Your task to perform on an android device: open wifi settings Image 0: 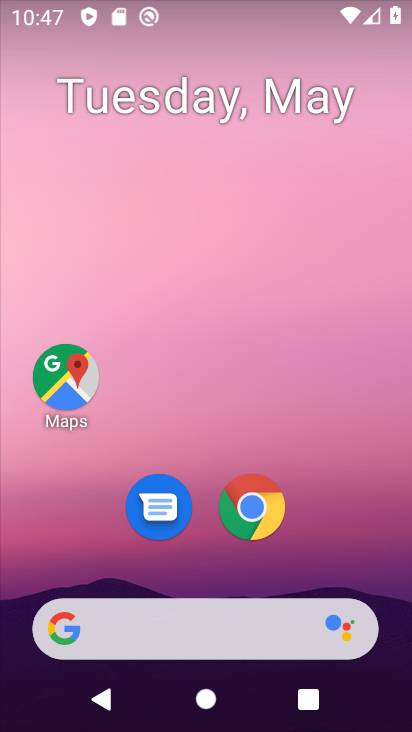
Step 0: click (200, 162)
Your task to perform on an android device: open wifi settings Image 1: 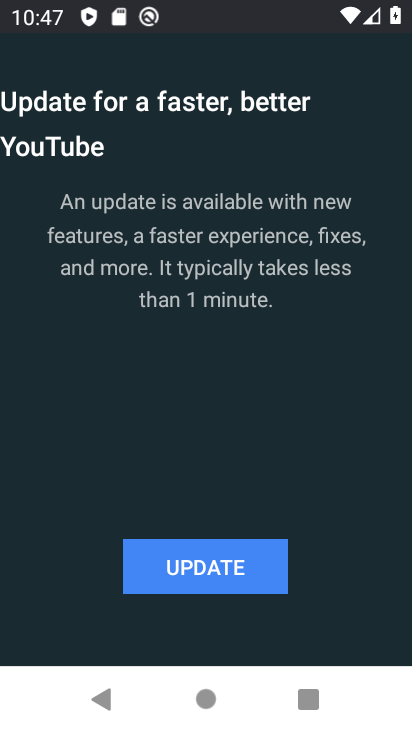
Step 1: press back button
Your task to perform on an android device: open wifi settings Image 2: 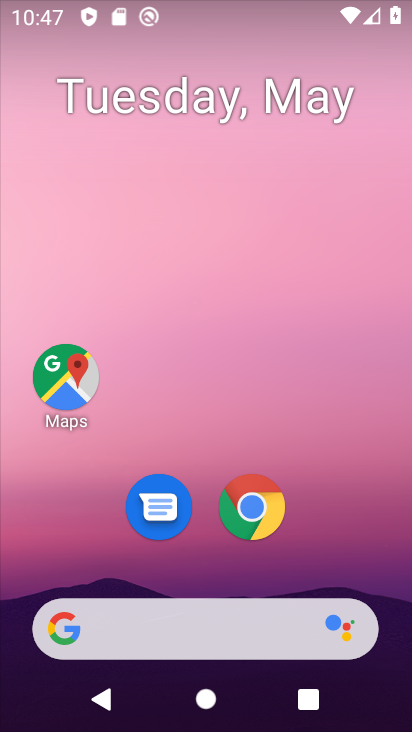
Step 2: drag from (240, 670) to (146, 16)
Your task to perform on an android device: open wifi settings Image 3: 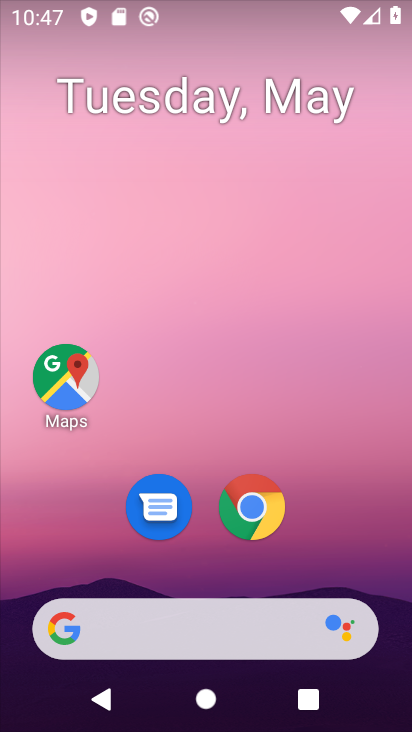
Step 3: drag from (279, 702) to (197, 22)
Your task to perform on an android device: open wifi settings Image 4: 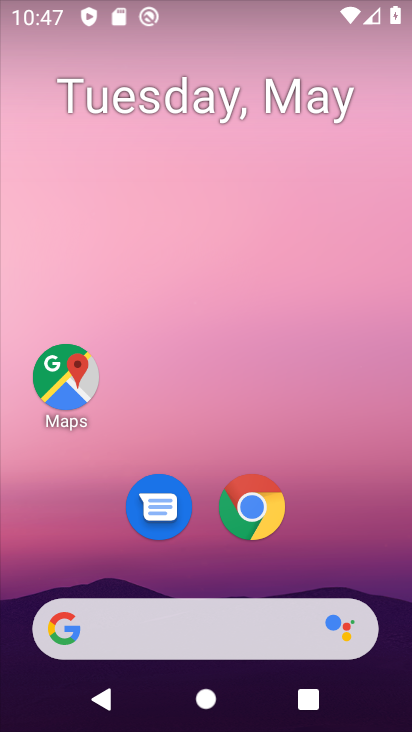
Step 4: drag from (237, 570) to (216, 11)
Your task to perform on an android device: open wifi settings Image 5: 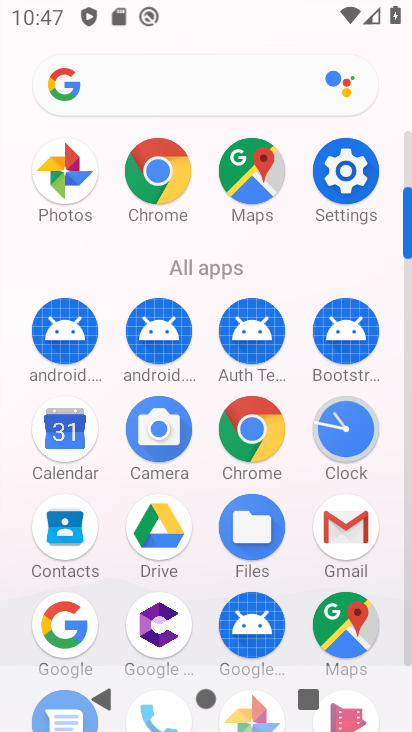
Step 5: drag from (272, 610) to (190, 31)
Your task to perform on an android device: open wifi settings Image 6: 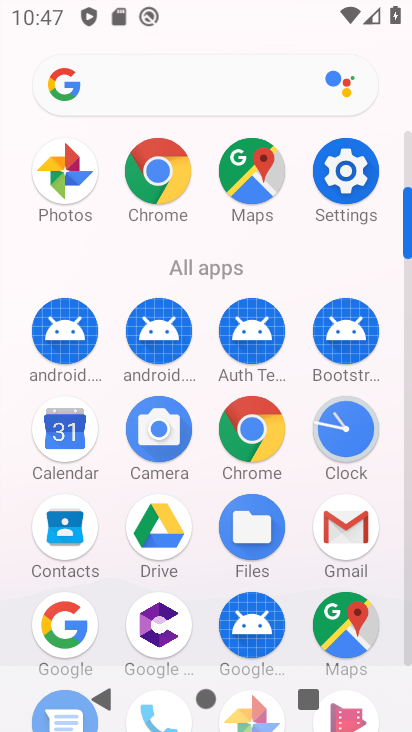
Step 6: click (327, 179)
Your task to perform on an android device: open wifi settings Image 7: 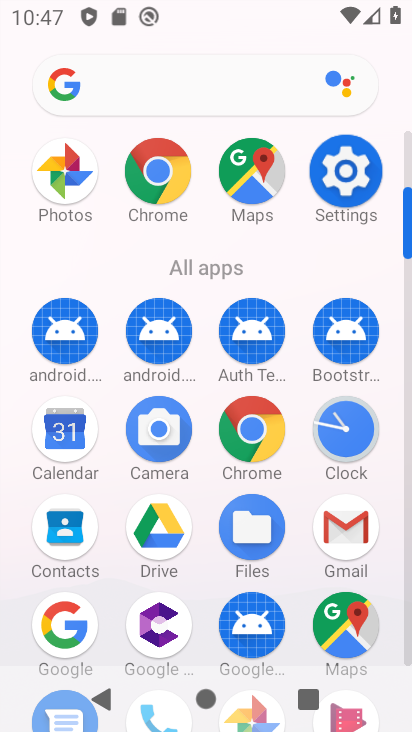
Step 7: click (329, 179)
Your task to perform on an android device: open wifi settings Image 8: 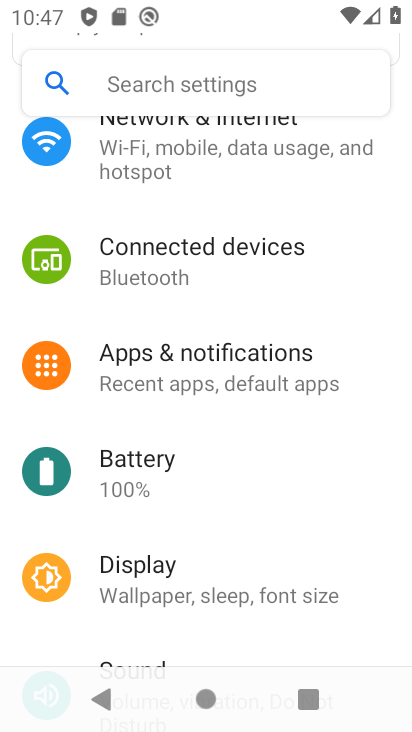
Step 8: drag from (181, 227) to (188, 523)
Your task to perform on an android device: open wifi settings Image 9: 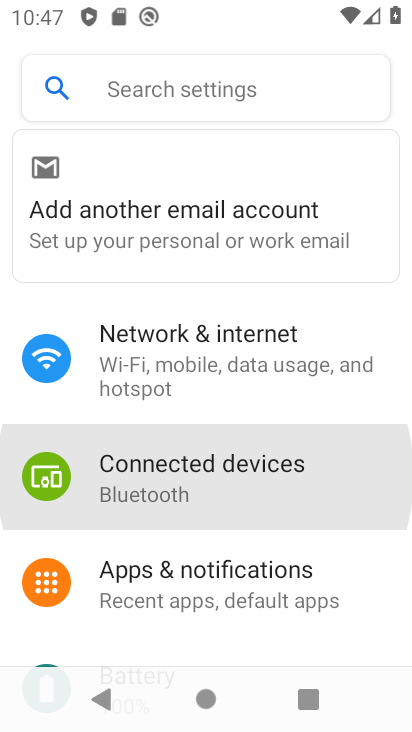
Step 9: drag from (188, 194) to (202, 513)
Your task to perform on an android device: open wifi settings Image 10: 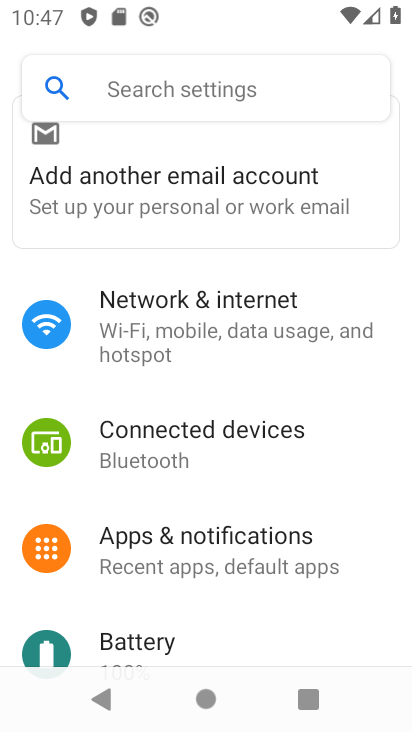
Step 10: click (190, 313)
Your task to perform on an android device: open wifi settings Image 11: 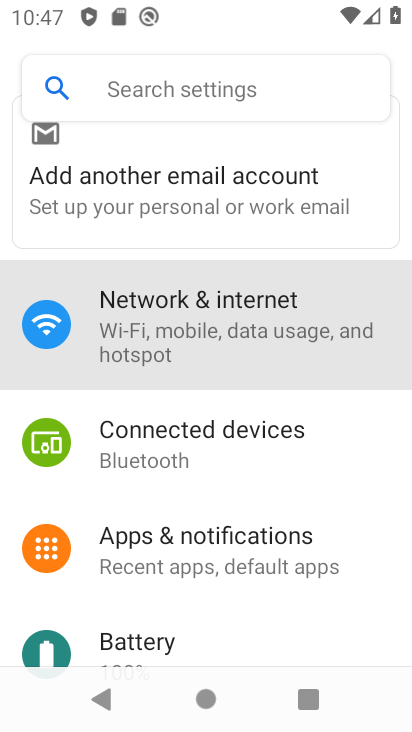
Step 11: click (190, 313)
Your task to perform on an android device: open wifi settings Image 12: 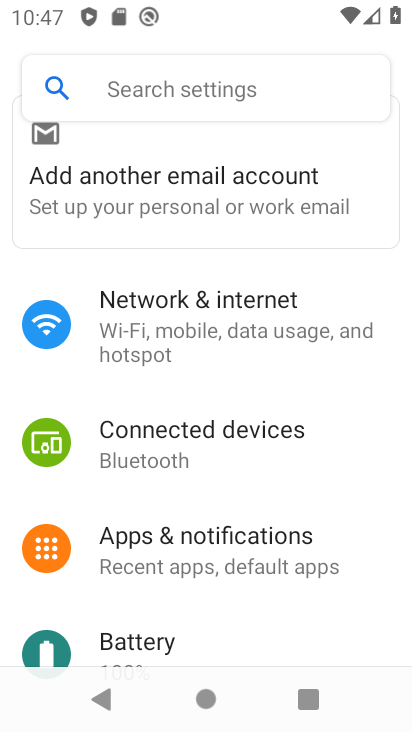
Step 12: click (190, 313)
Your task to perform on an android device: open wifi settings Image 13: 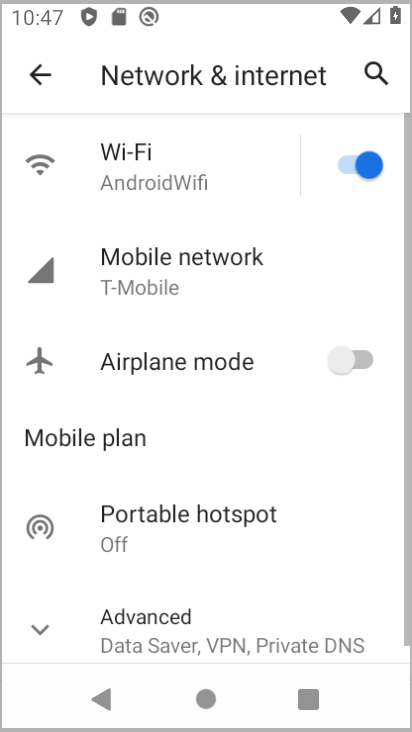
Step 13: click (190, 313)
Your task to perform on an android device: open wifi settings Image 14: 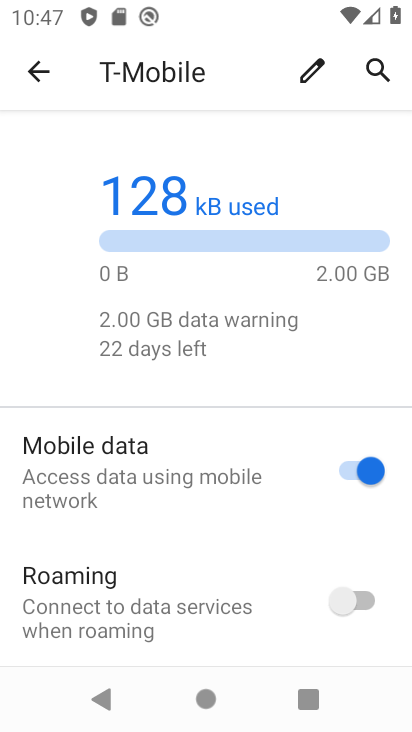
Step 14: click (34, 84)
Your task to perform on an android device: open wifi settings Image 15: 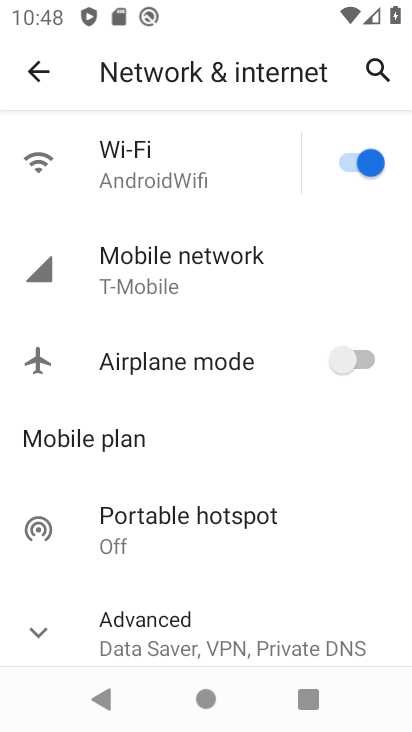
Step 15: task complete